Your task to perform on an android device: toggle priority inbox in the gmail app Image 0: 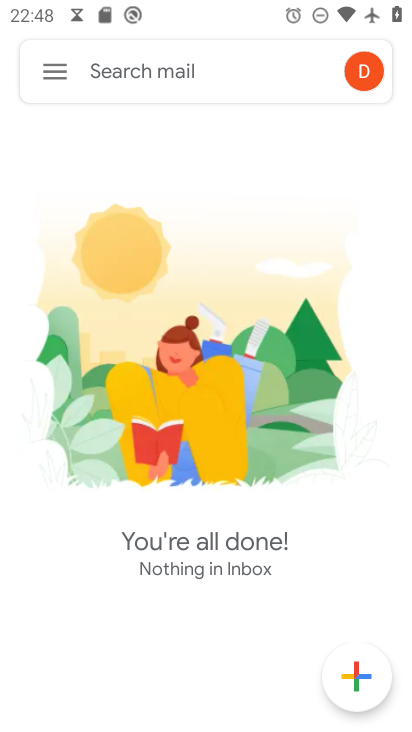
Step 0: click (61, 68)
Your task to perform on an android device: toggle priority inbox in the gmail app Image 1: 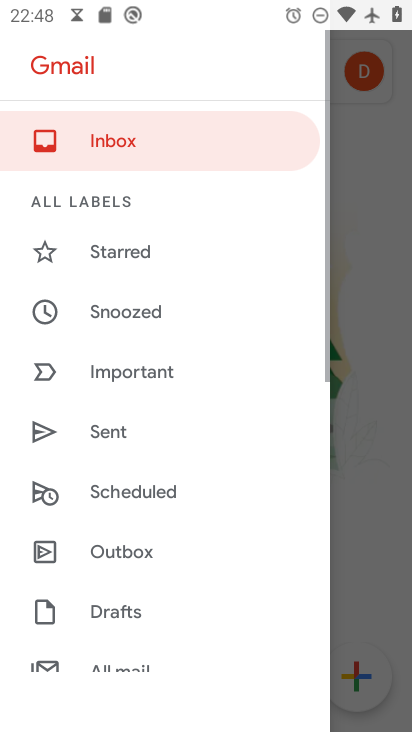
Step 1: drag from (176, 626) to (271, 102)
Your task to perform on an android device: toggle priority inbox in the gmail app Image 2: 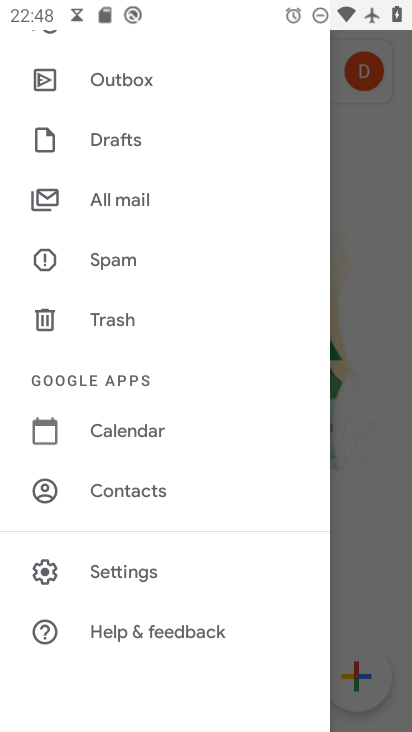
Step 2: click (113, 570)
Your task to perform on an android device: toggle priority inbox in the gmail app Image 3: 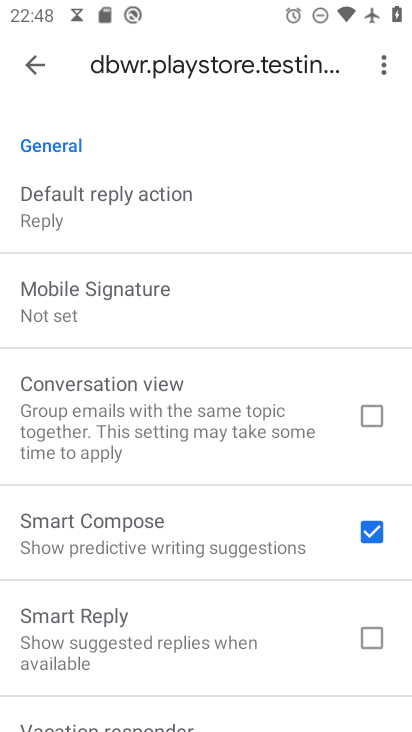
Step 3: drag from (270, 119) to (234, 635)
Your task to perform on an android device: toggle priority inbox in the gmail app Image 4: 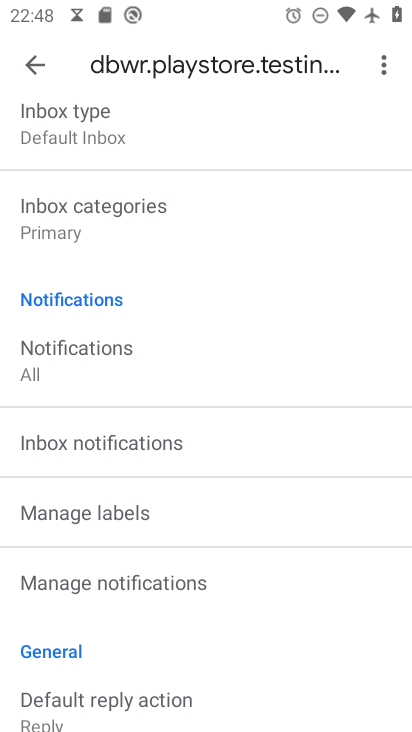
Step 4: click (48, 127)
Your task to perform on an android device: toggle priority inbox in the gmail app Image 5: 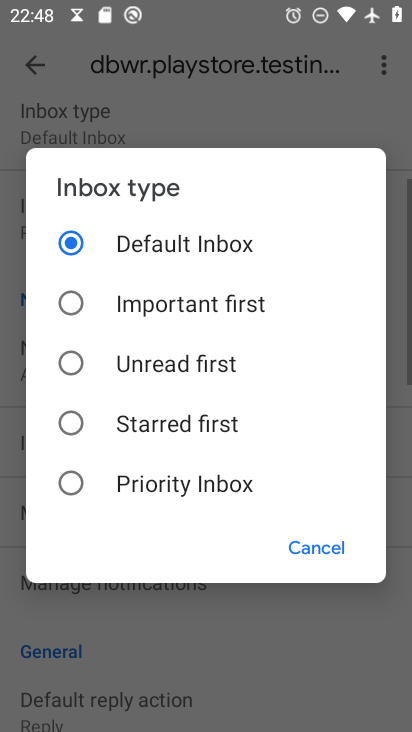
Step 5: click (70, 490)
Your task to perform on an android device: toggle priority inbox in the gmail app Image 6: 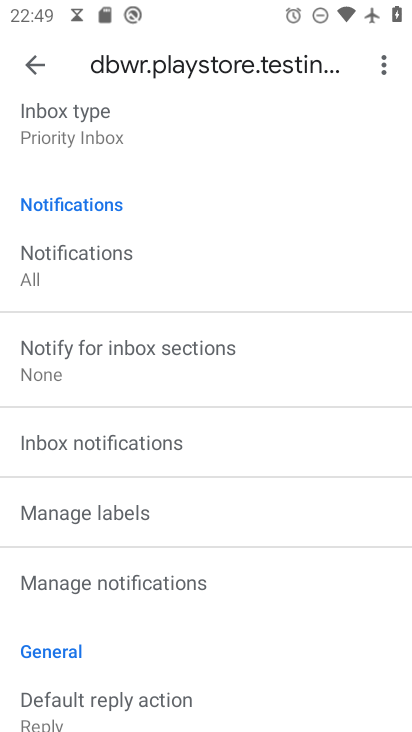
Step 6: task complete